Your task to perform on an android device: open app "Spotify: Music and Podcasts" Image 0: 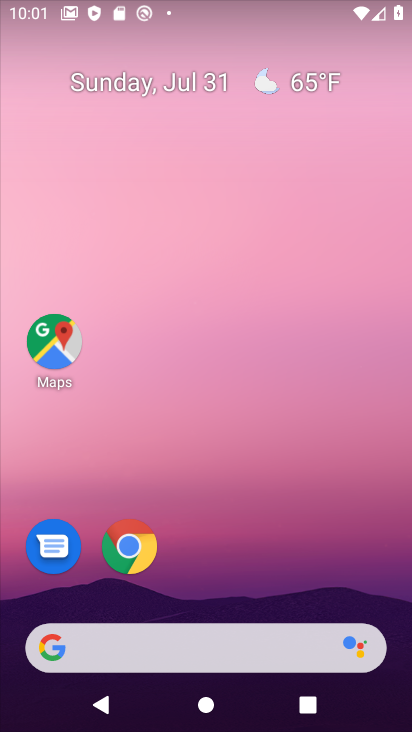
Step 0: drag from (275, 127) to (272, 0)
Your task to perform on an android device: open app "Spotify: Music and Podcasts" Image 1: 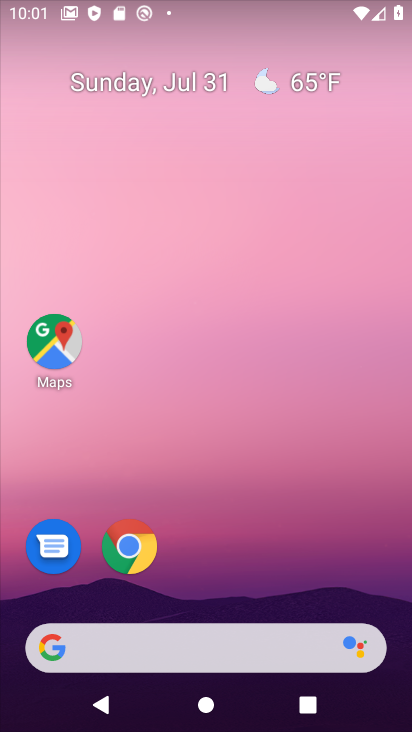
Step 1: drag from (221, 609) to (297, 60)
Your task to perform on an android device: open app "Spotify: Music and Podcasts" Image 2: 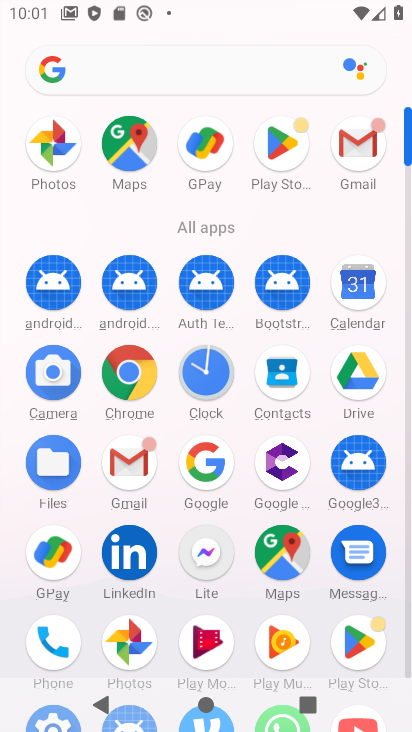
Step 2: click (274, 147)
Your task to perform on an android device: open app "Spotify: Music and Podcasts" Image 3: 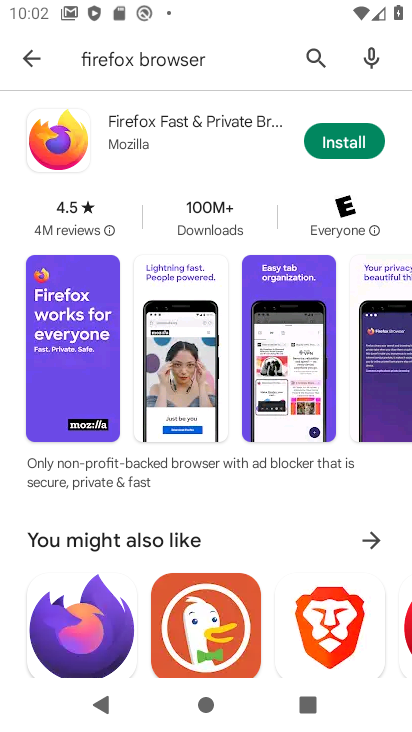
Step 3: click (306, 58)
Your task to perform on an android device: open app "Spotify: Music and Podcasts" Image 4: 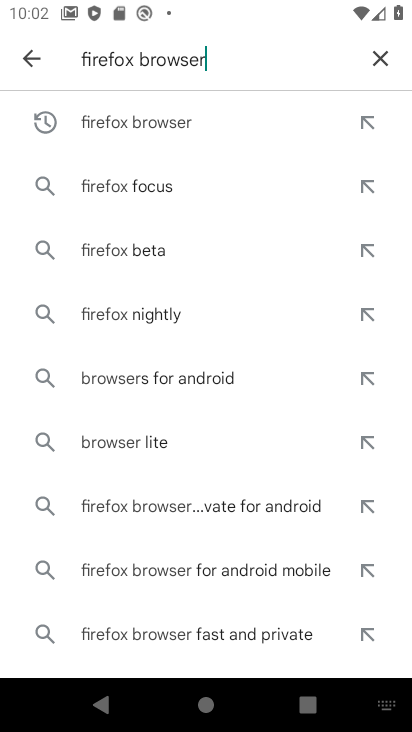
Step 4: click (376, 54)
Your task to perform on an android device: open app "Spotify: Music and Podcasts" Image 5: 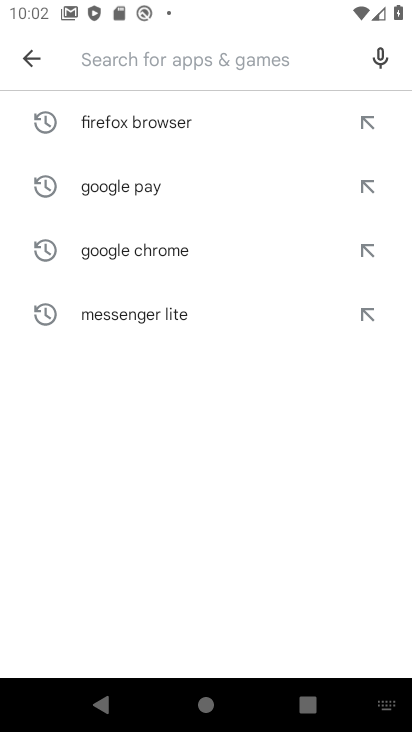
Step 5: click (232, 53)
Your task to perform on an android device: open app "Spotify: Music and Podcasts" Image 6: 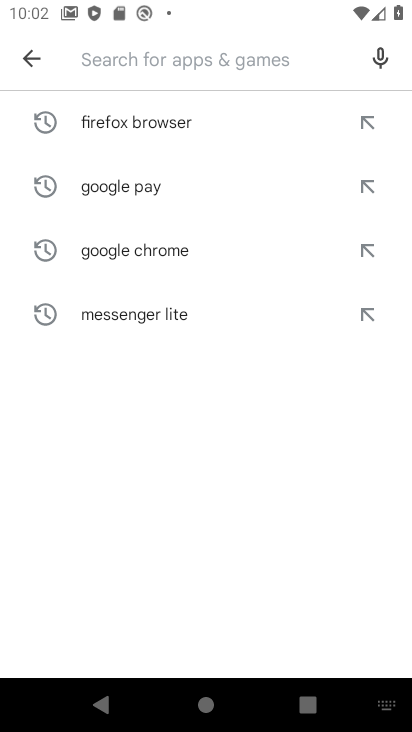
Step 6: type "spotify"
Your task to perform on an android device: open app "Spotify: Music and Podcasts" Image 7: 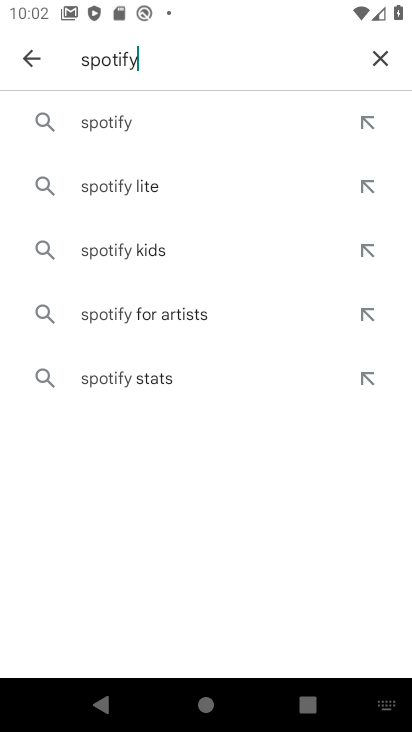
Step 7: click (110, 100)
Your task to perform on an android device: open app "Spotify: Music and Podcasts" Image 8: 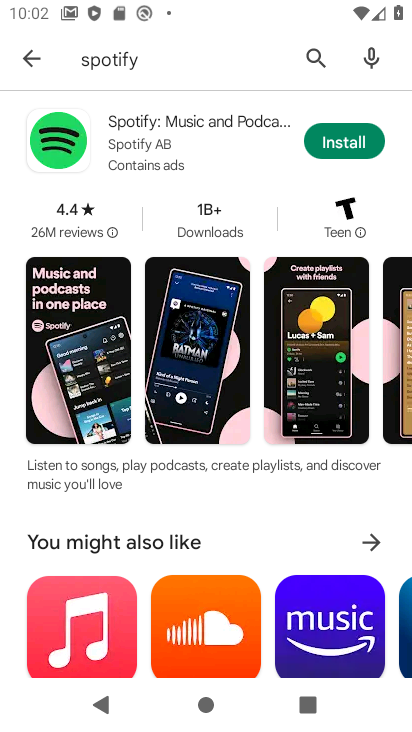
Step 8: task complete